Your task to perform on an android device: Open calendar and show me the second week of next month Image 0: 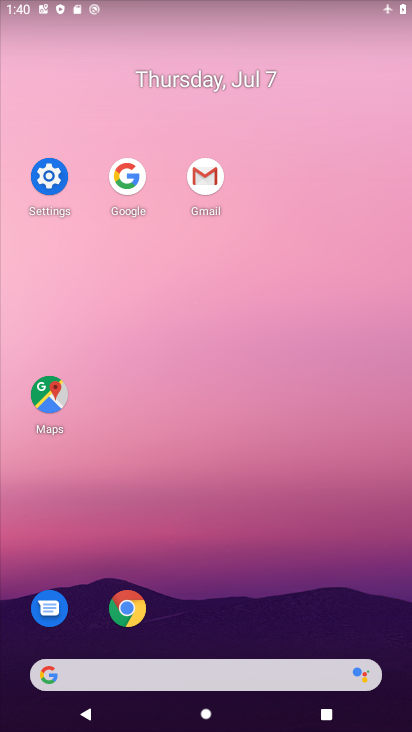
Step 0: drag from (288, 604) to (311, 19)
Your task to perform on an android device: Open calendar and show me the second week of next month Image 1: 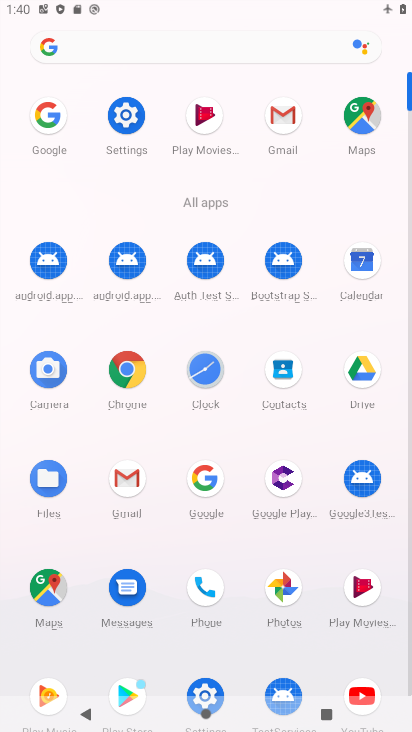
Step 1: drag from (357, 257) to (284, 236)
Your task to perform on an android device: Open calendar and show me the second week of next month Image 2: 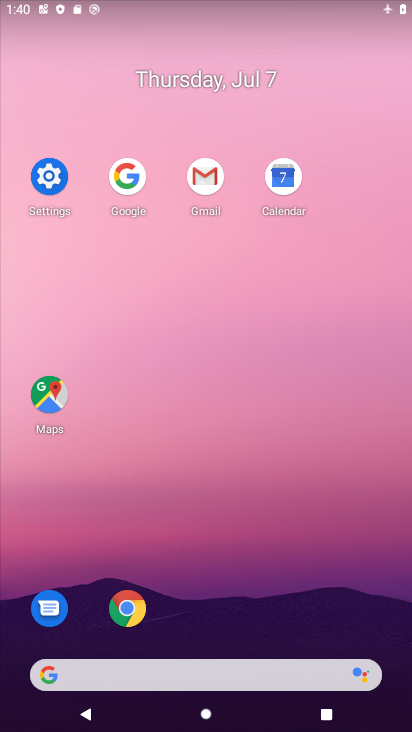
Step 2: click (281, 180)
Your task to perform on an android device: Open calendar and show me the second week of next month Image 3: 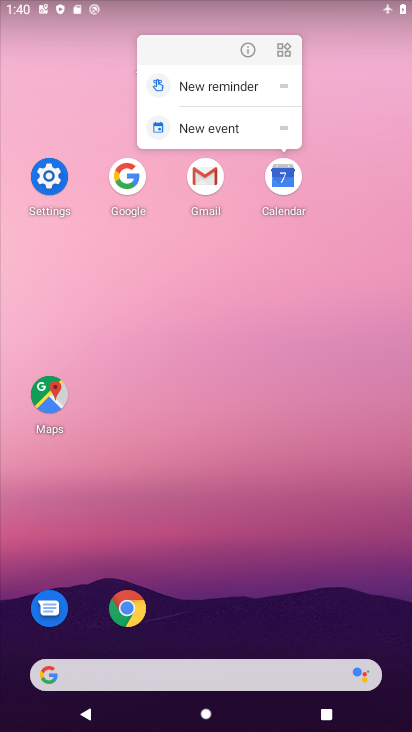
Step 3: click (273, 189)
Your task to perform on an android device: Open calendar and show me the second week of next month Image 4: 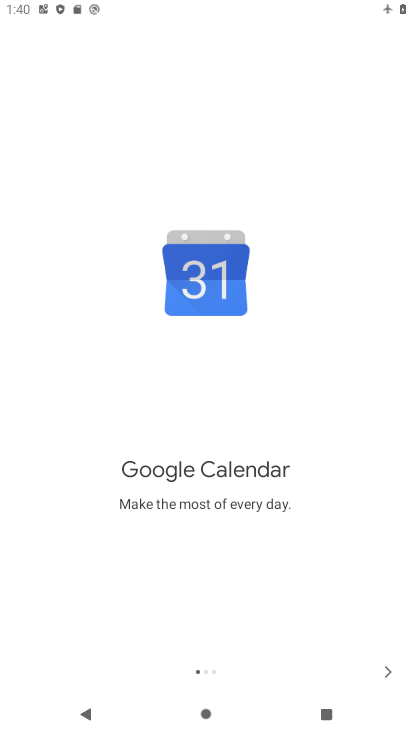
Step 4: click (379, 672)
Your task to perform on an android device: Open calendar and show me the second week of next month Image 5: 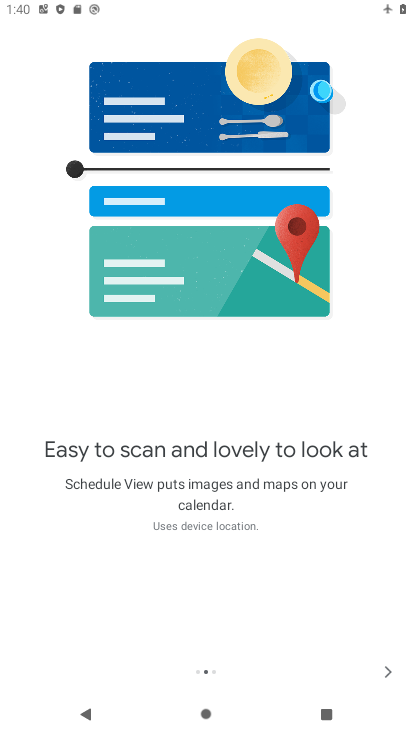
Step 5: click (379, 672)
Your task to perform on an android device: Open calendar and show me the second week of next month Image 6: 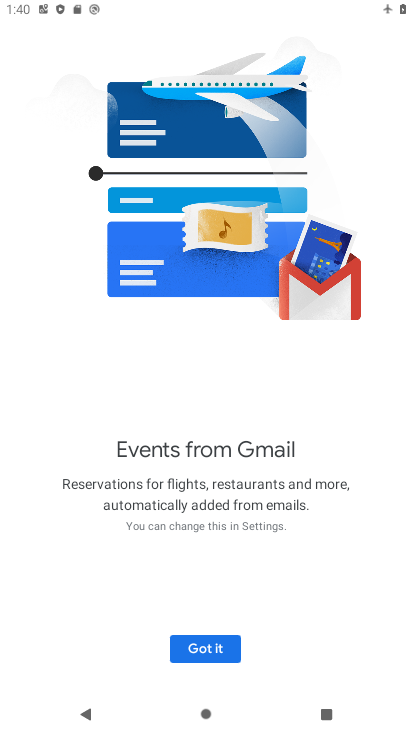
Step 6: click (233, 648)
Your task to perform on an android device: Open calendar and show me the second week of next month Image 7: 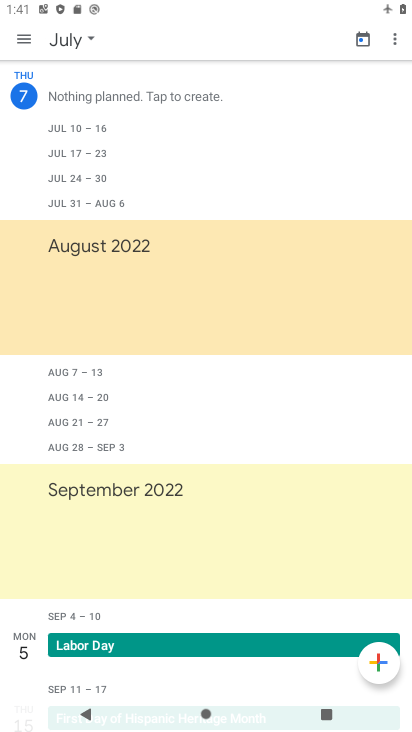
Step 7: click (79, 40)
Your task to perform on an android device: Open calendar and show me the second week of next month Image 8: 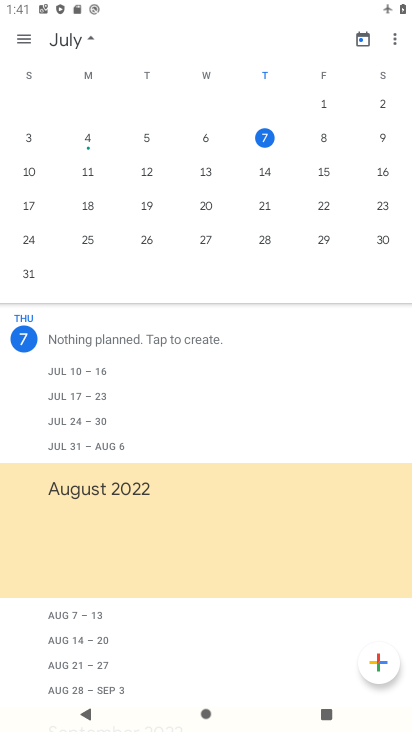
Step 8: drag from (382, 181) to (18, 167)
Your task to perform on an android device: Open calendar and show me the second week of next month Image 9: 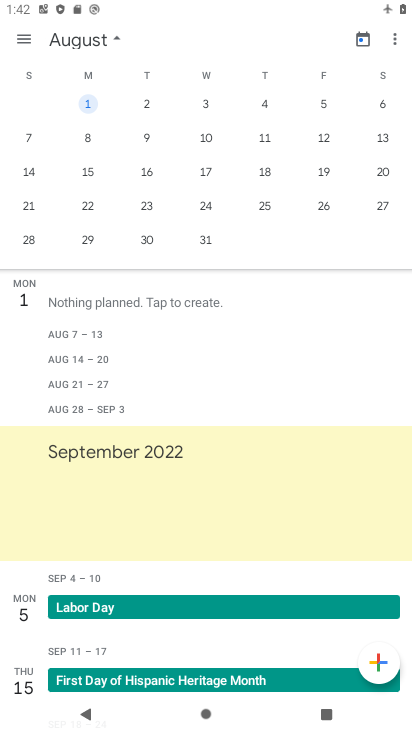
Step 9: click (88, 134)
Your task to perform on an android device: Open calendar and show me the second week of next month Image 10: 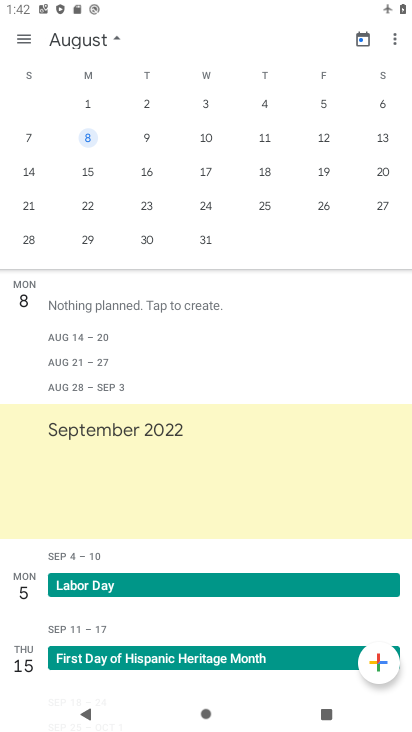
Step 10: click (15, 40)
Your task to perform on an android device: Open calendar and show me the second week of next month Image 11: 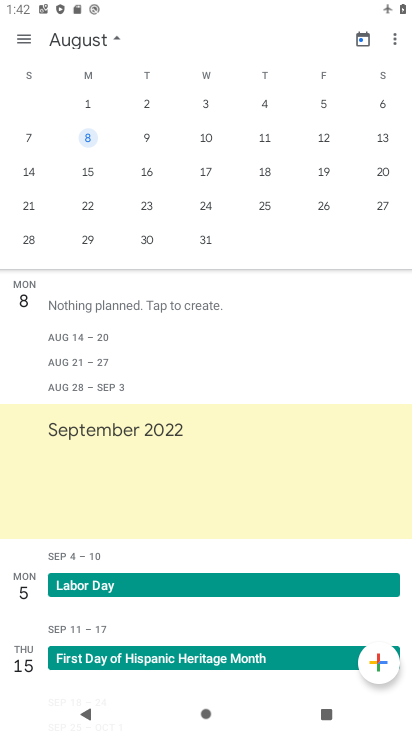
Step 11: click (26, 36)
Your task to perform on an android device: Open calendar and show me the second week of next month Image 12: 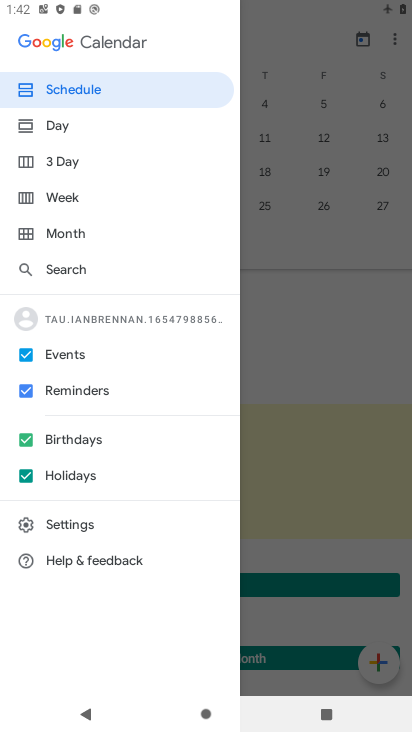
Step 12: click (103, 197)
Your task to perform on an android device: Open calendar and show me the second week of next month Image 13: 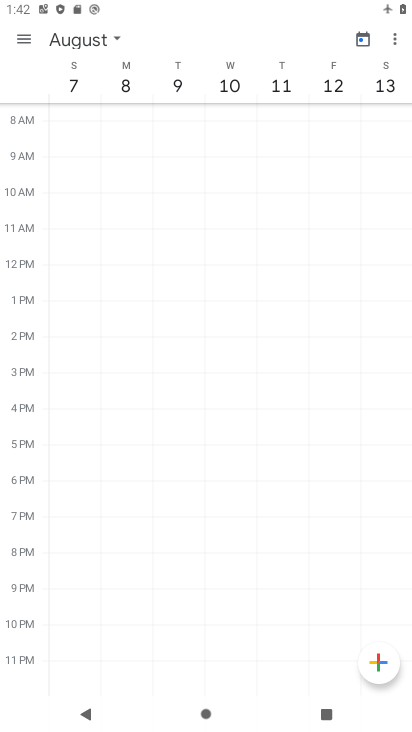
Step 13: task complete